Your task to perform on an android device: set the stopwatch Image 0: 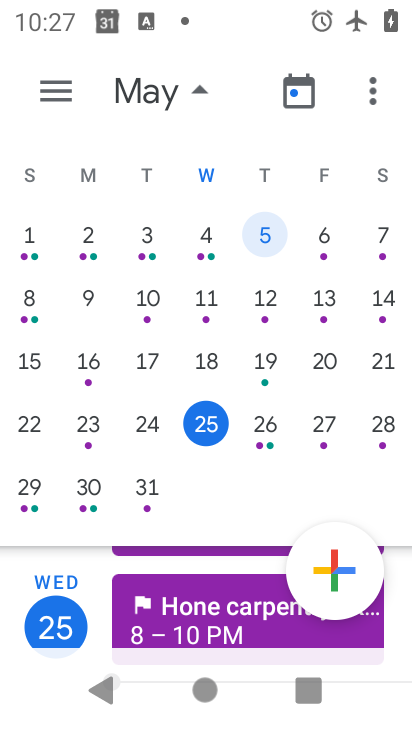
Step 0: press home button
Your task to perform on an android device: set the stopwatch Image 1: 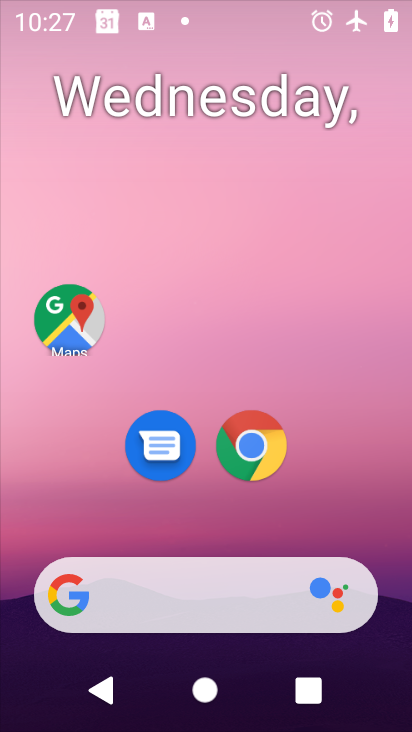
Step 1: drag from (411, 342) to (84, 485)
Your task to perform on an android device: set the stopwatch Image 2: 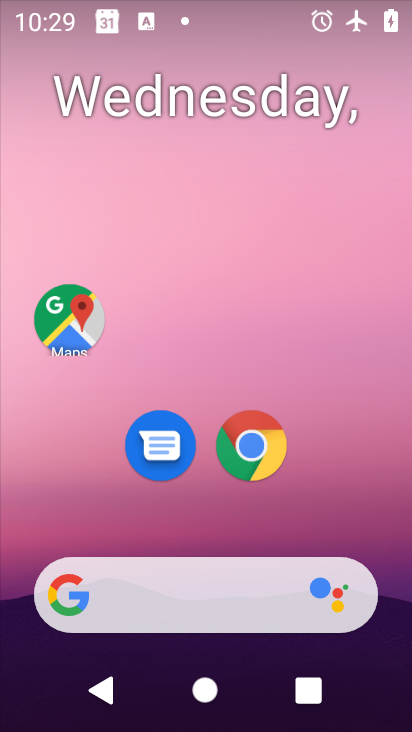
Step 2: drag from (307, 532) to (374, 17)
Your task to perform on an android device: set the stopwatch Image 3: 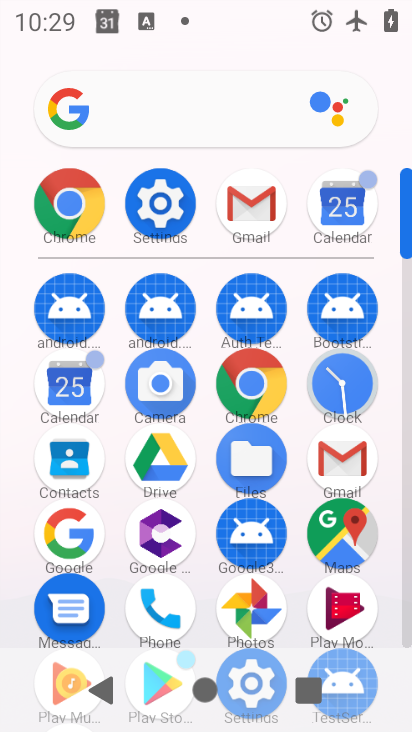
Step 3: click (368, 380)
Your task to perform on an android device: set the stopwatch Image 4: 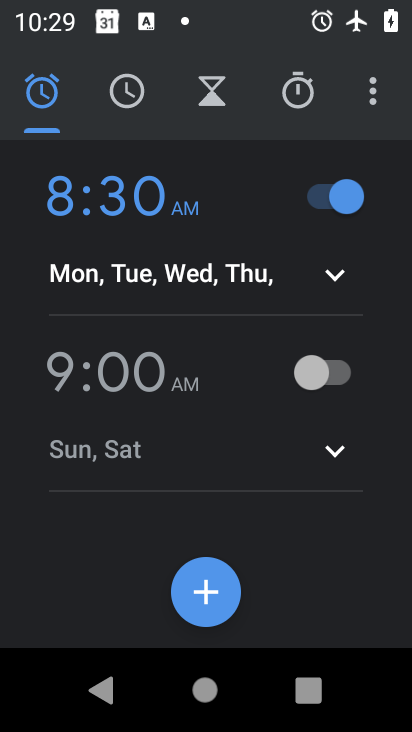
Step 4: click (302, 119)
Your task to perform on an android device: set the stopwatch Image 5: 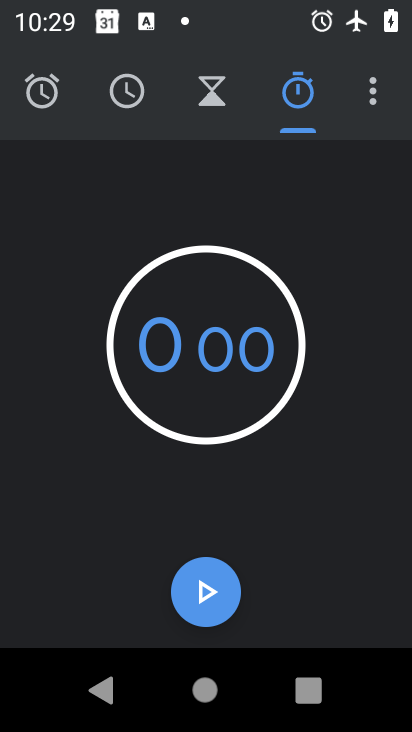
Step 5: click (214, 594)
Your task to perform on an android device: set the stopwatch Image 6: 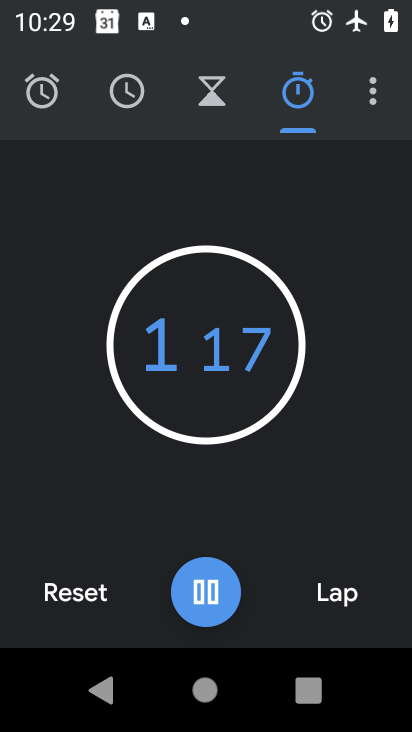
Step 6: task complete